Your task to perform on an android device: Open Google Maps Image 0: 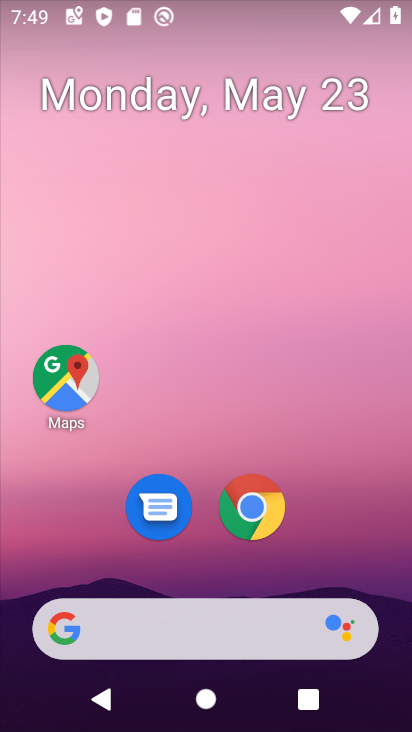
Step 0: drag from (359, 543) to (330, 107)
Your task to perform on an android device: Open Google Maps Image 1: 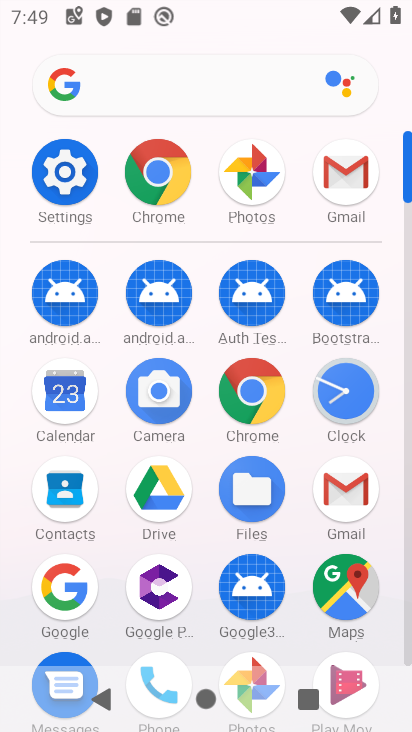
Step 1: click (348, 586)
Your task to perform on an android device: Open Google Maps Image 2: 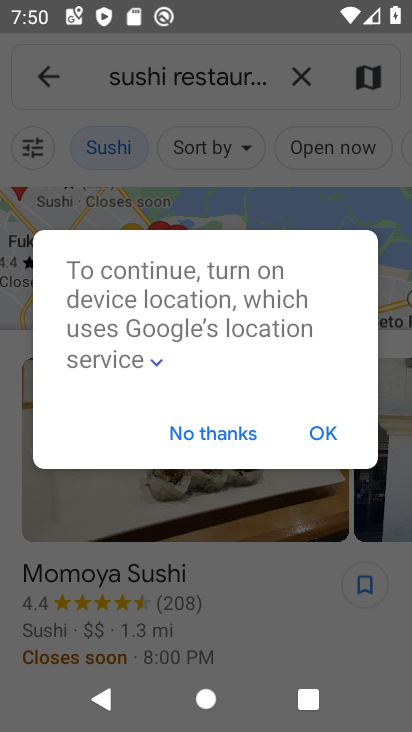
Step 2: click (337, 424)
Your task to perform on an android device: Open Google Maps Image 3: 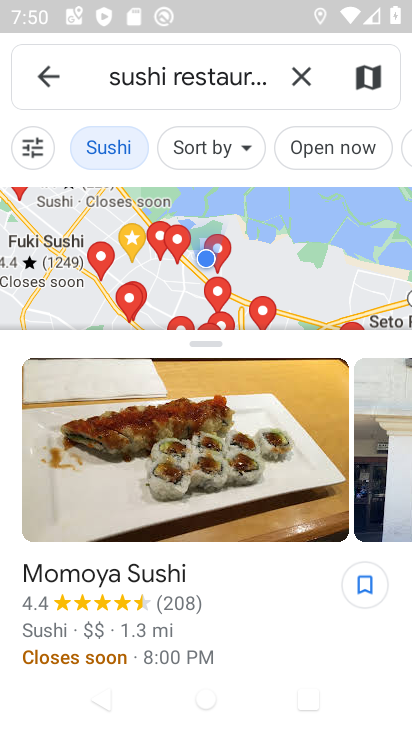
Step 3: task complete